Your task to perform on an android device: Open Google Chrome and click the shortcut for Amazon.com Image 0: 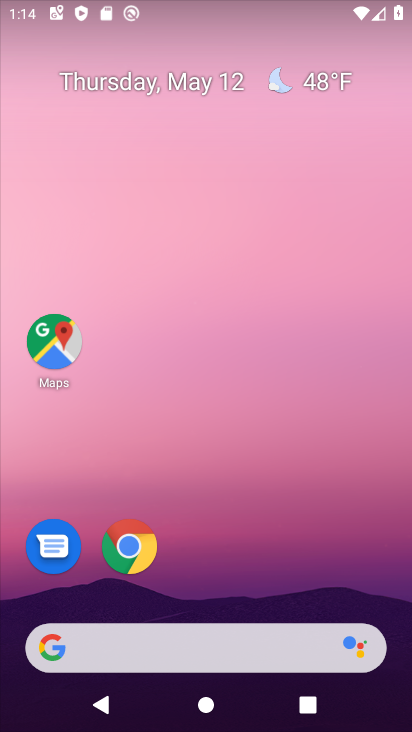
Step 0: click (135, 564)
Your task to perform on an android device: Open Google Chrome and click the shortcut for Amazon.com Image 1: 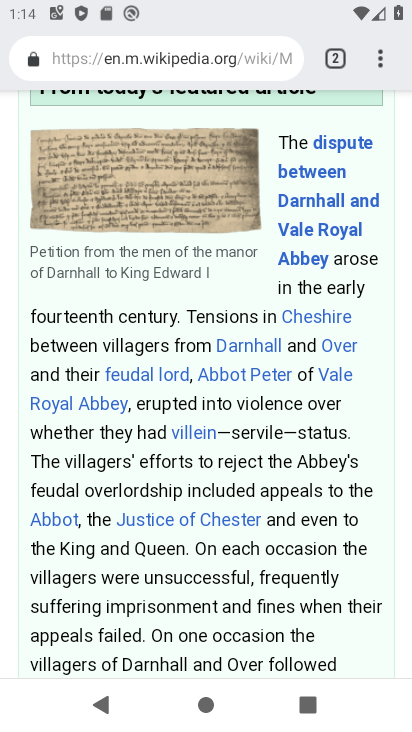
Step 1: drag from (381, 62) to (256, 114)
Your task to perform on an android device: Open Google Chrome and click the shortcut for Amazon.com Image 2: 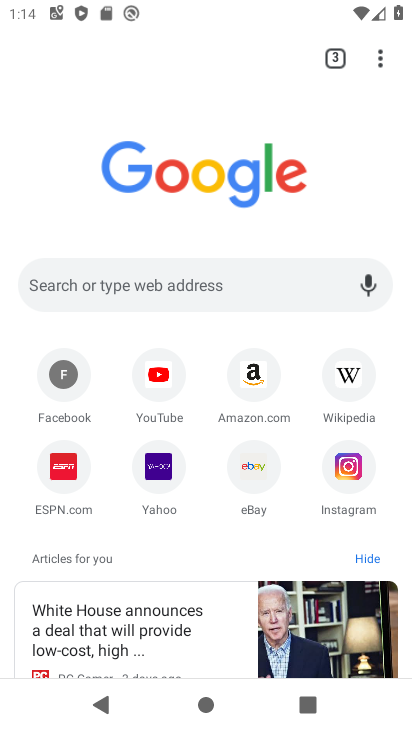
Step 2: click (252, 391)
Your task to perform on an android device: Open Google Chrome and click the shortcut for Amazon.com Image 3: 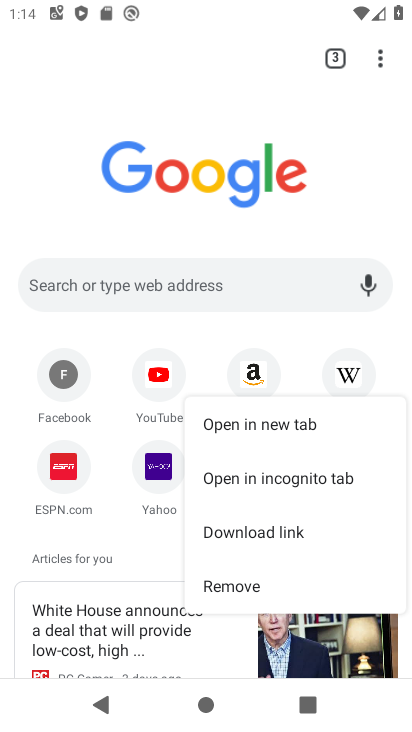
Step 3: click (252, 375)
Your task to perform on an android device: Open Google Chrome and click the shortcut for Amazon.com Image 4: 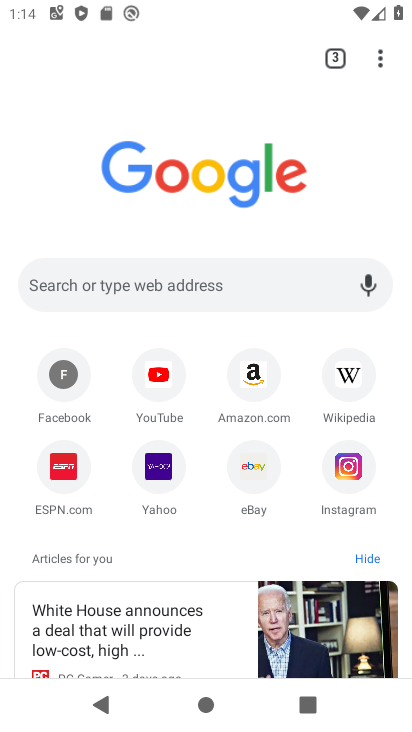
Step 4: click (256, 381)
Your task to perform on an android device: Open Google Chrome and click the shortcut for Amazon.com Image 5: 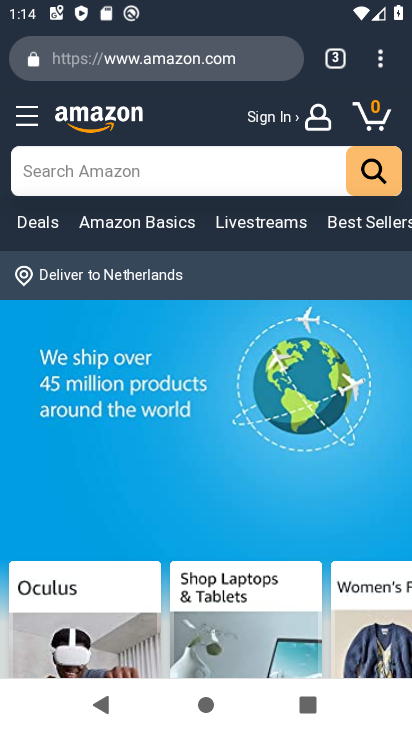
Step 5: task complete